Your task to perform on an android device: allow cookies in the chrome app Image 0: 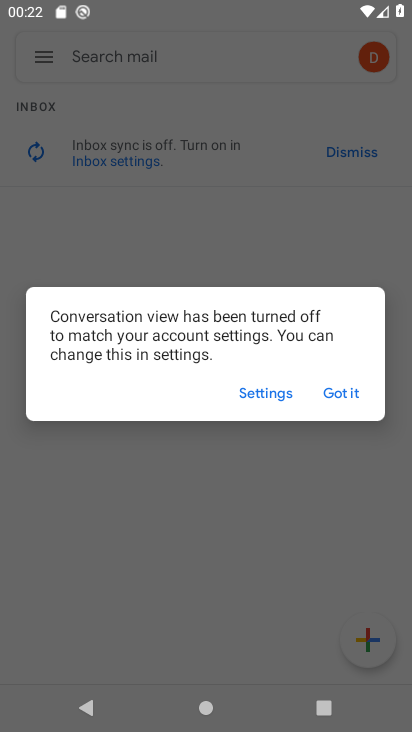
Step 0: press home button
Your task to perform on an android device: allow cookies in the chrome app Image 1: 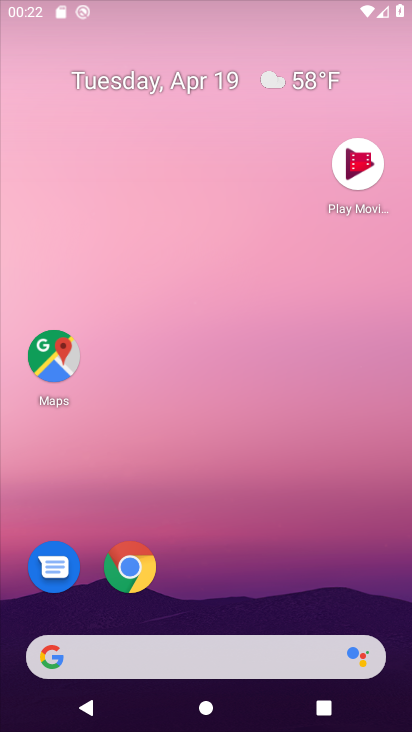
Step 1: drag from (219, 599) to (273, 17)
Your task to perform on an android device: allow cookies in the chrome app Image 2: 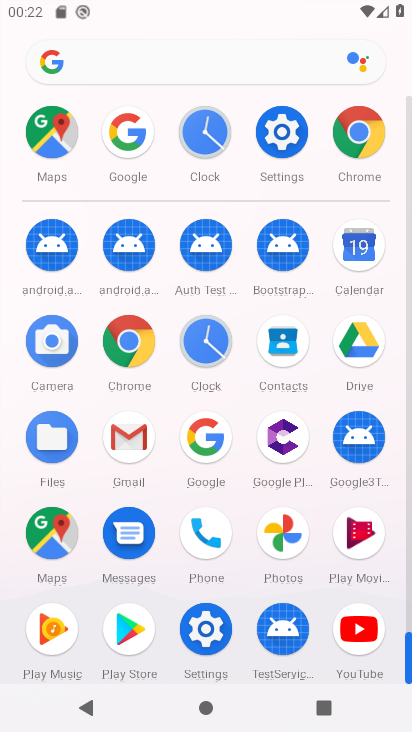
Step 2: click (127, 343)
Your task to perform on an android device: allow cookies in the chrome app Image 3: 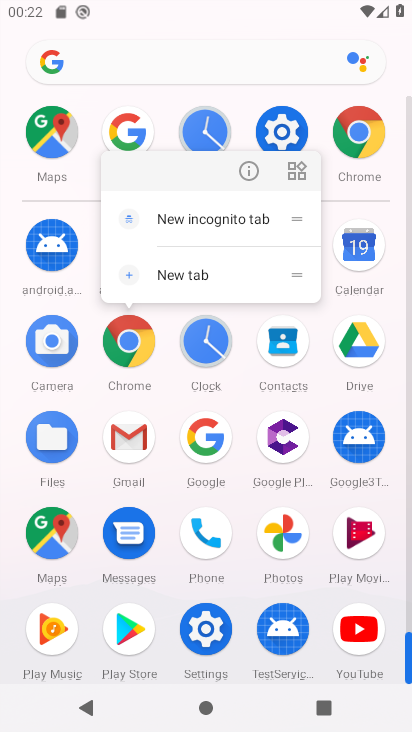
Step 3: click (254, 172)
Your task to perform on an android device: allow cookies in the chrome app Image 4: 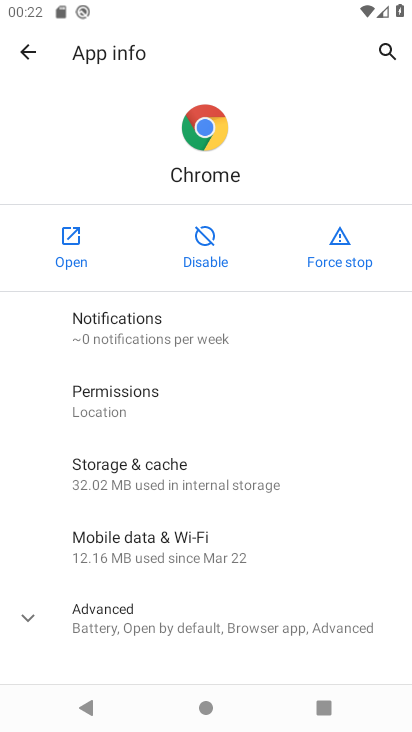
Step 4: click (79, 239)
Your task to perform on an android device: allow cookies in the chrome app Image 5: 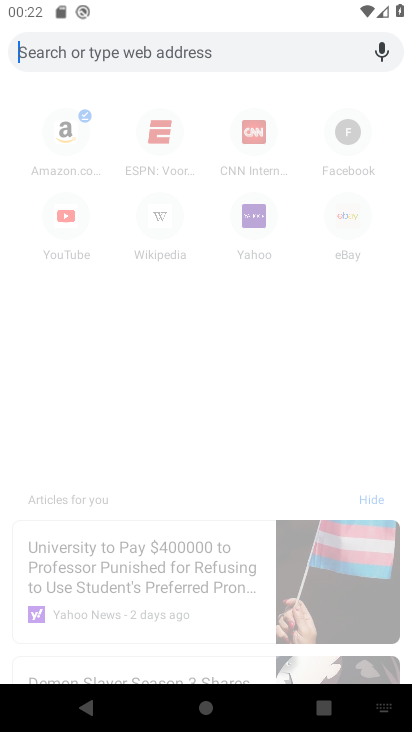
Step 5: click (97, 45)
Your task to perform on an android device: allow cookies in the chrome app Image 6: 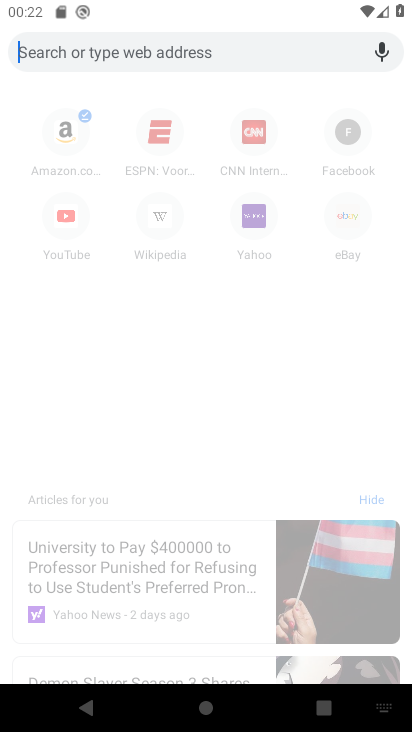
Step 6: type "allow c"
Your task to perform on an android device: allow cookies in the chrome app Image 7: 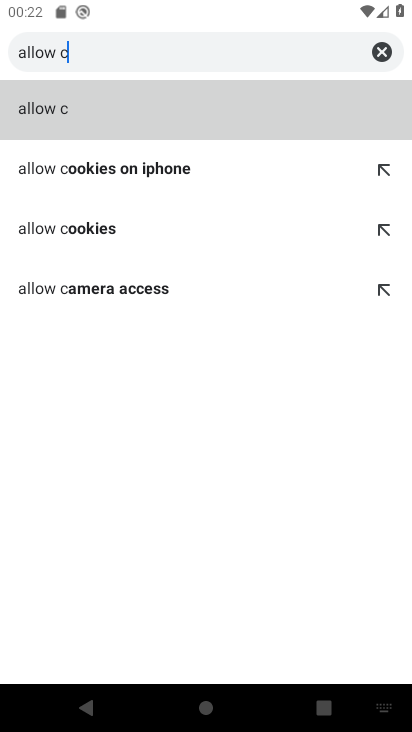
Step 7: click (370, 41)
Your task to perform on an android device: allow cookies in the chrome app Image 8: 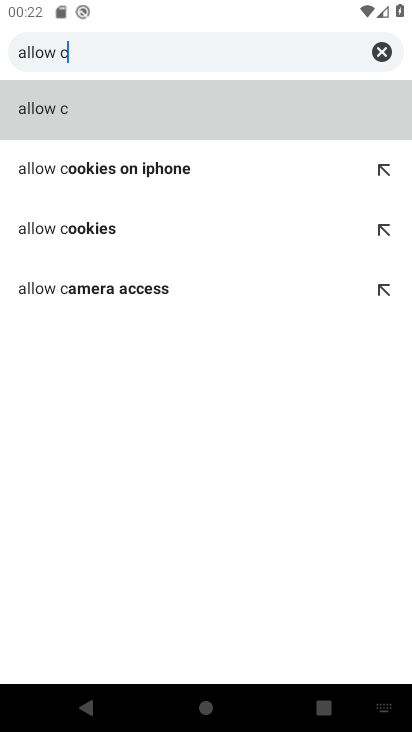
Step 8: click (389, 55)
Your task to perform on an android device: allow cookies in the chrome app Image 9: 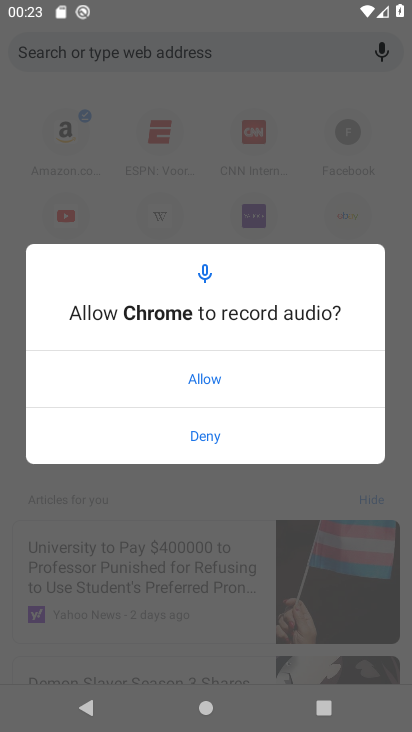
Step 9: press back button
Your task to perform on an android device: allow cookies in the chrome app Image 10: 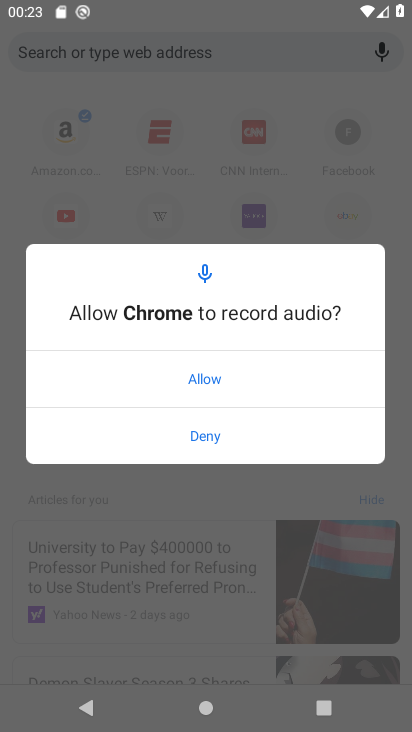
Step 10: click (204, 392)
Your task to perform on an android device: allow cookies in the chrome app Image 11: 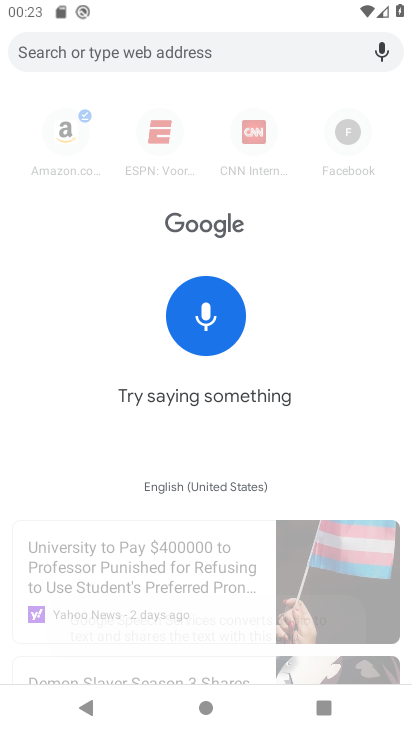
Step 11: drag from (270, 183) to (395, 508)
Your task to perform on an android device: allow cookies in the chrome app Image 12: 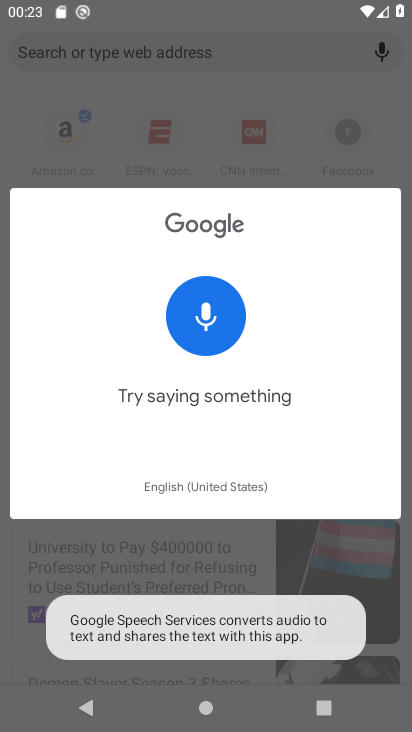
Step 12: press back button
Your task to perform on an android device: allow cookies in the chrome app Image 13: 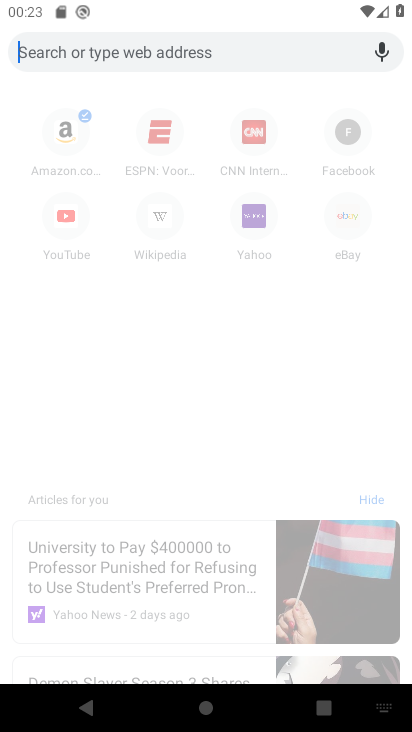
Step 13: press back button
Your task to perform on an android device: allow cookies in the chrome app Image 14: 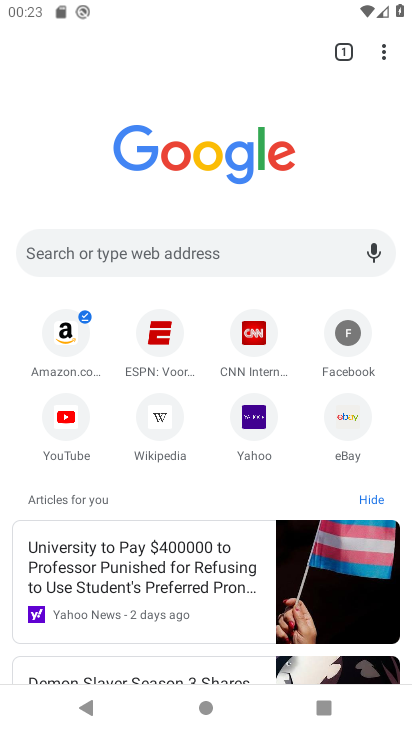
Step 14: drag from (384, 39) to (211, 501)
Your task to perform on an android device: allow cookies in the chrome app Image 15: 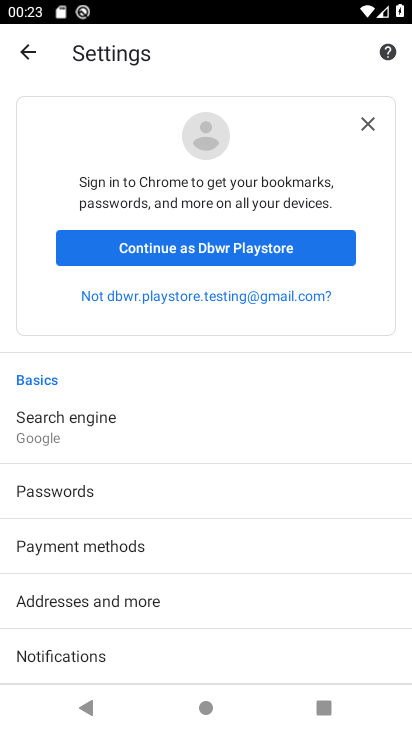
Step 15: drag from (197, 480) to (238, 138)
Your task to perform on an android device: allow cookies in the chrome app Image 16: 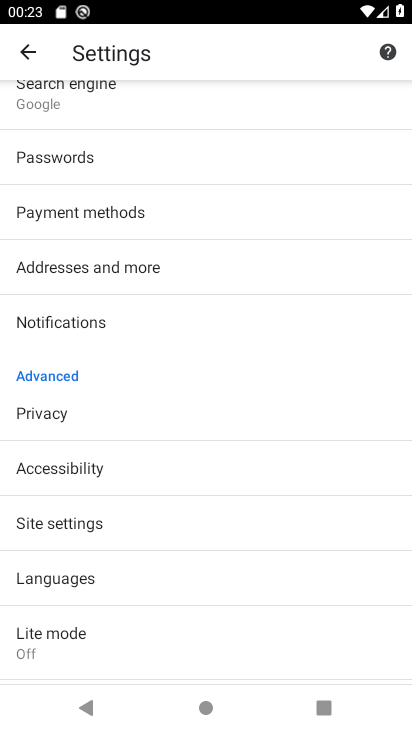
Step 16: click (91, 514)
Your task to perform on an android device: allow cookies in the chrome app Image 17: 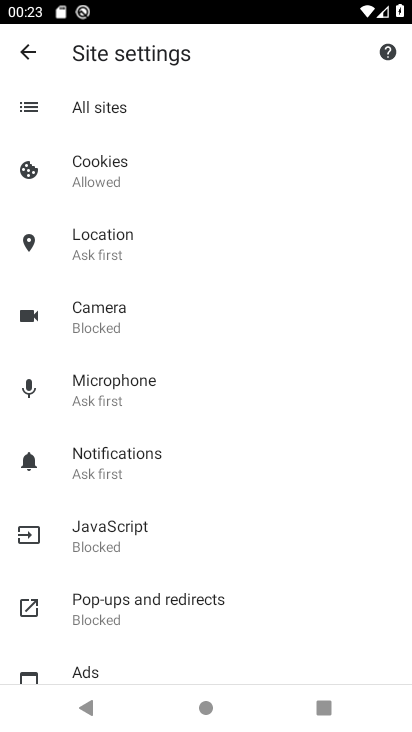
Step 17: click (162, 183)
Your task to perform on an android device: allow cookies in the chrome app Image 18: 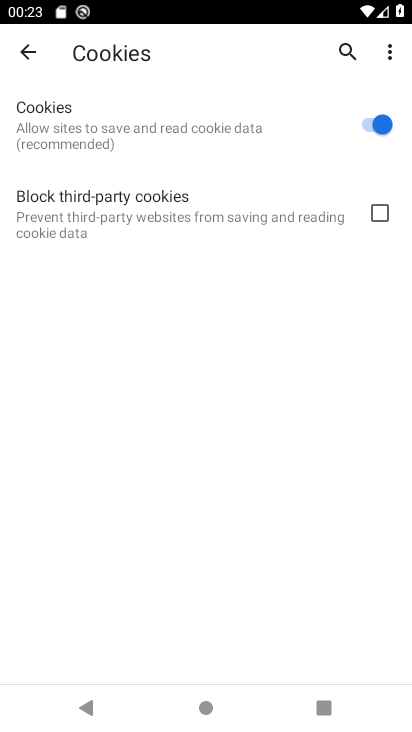
Step 18: task complete